Your task to perform on an android device: turn off data saver in the chrome app Image 0: 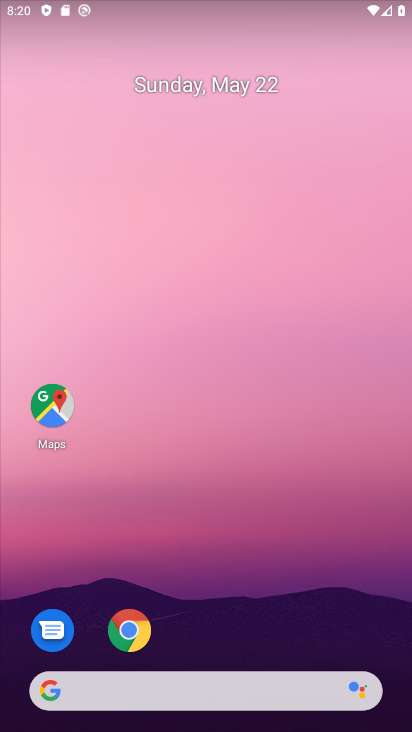
Step 0: click (111, 620)
Your task to perform on an android device: turn off data saver in the chrome app Image 1: 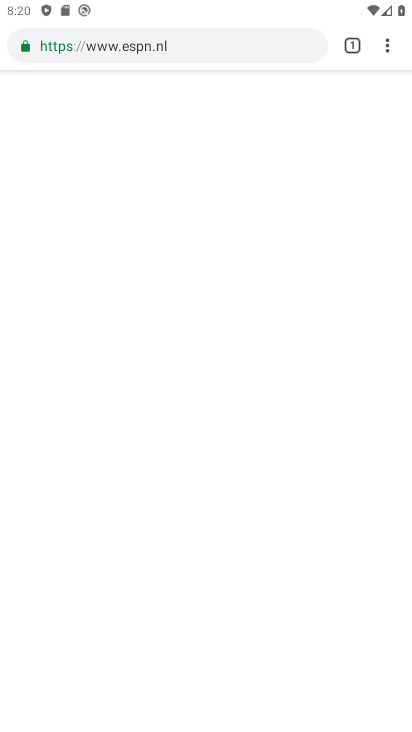
Step 1: click (398, 53)
Your task to perform on an android device: turn off data saver in the chrome app Image 2: 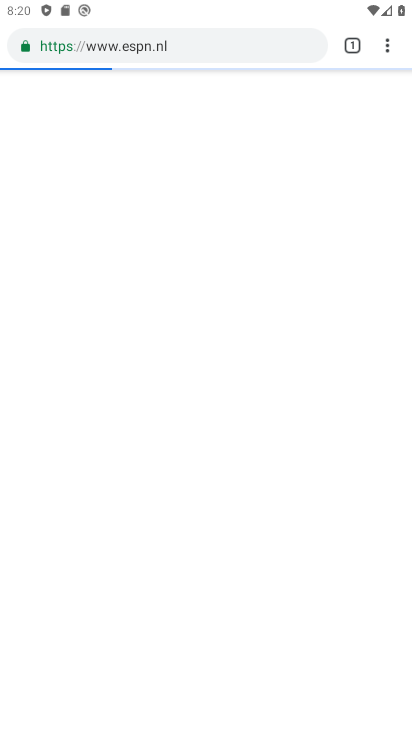
Step 2: click (385, 44)
Your task to perform on an android device: turn off data saver in the chrome app Image 3: 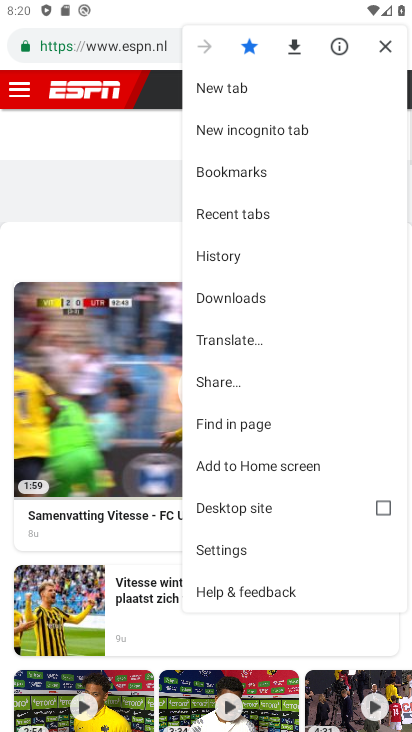
Step 3: click (219, 559)
Your task to perform on an android device: turn off data saver in the chrome app Image 4: 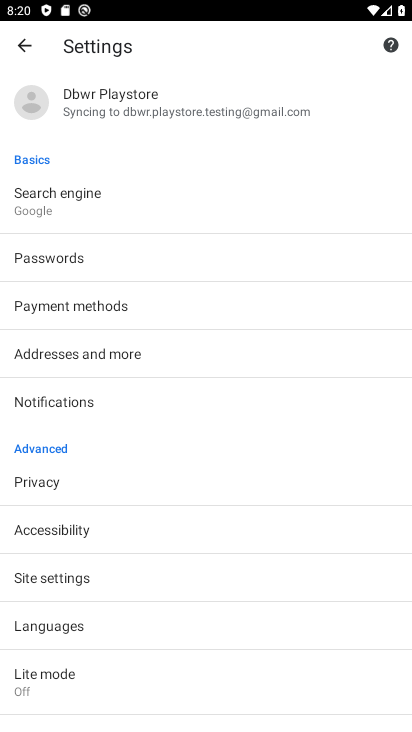
Step 4: click (76, 658)
Your task to perform on an android device: turn off data saver in the chrome app Image 5: 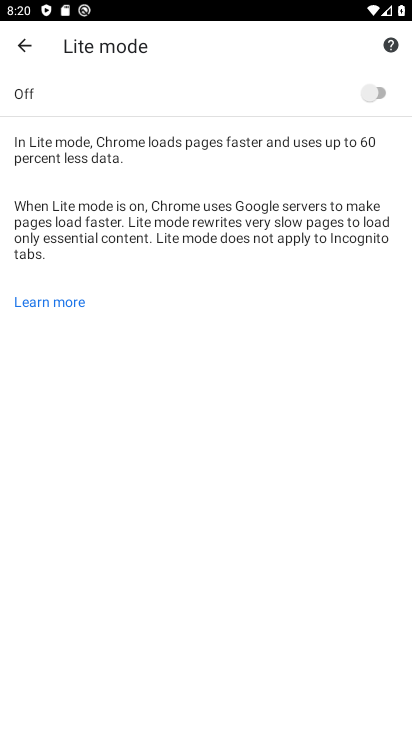
Step 5: task complete